Your task to perform on an android device: Set the phone to "Do not disturb". Image 0: 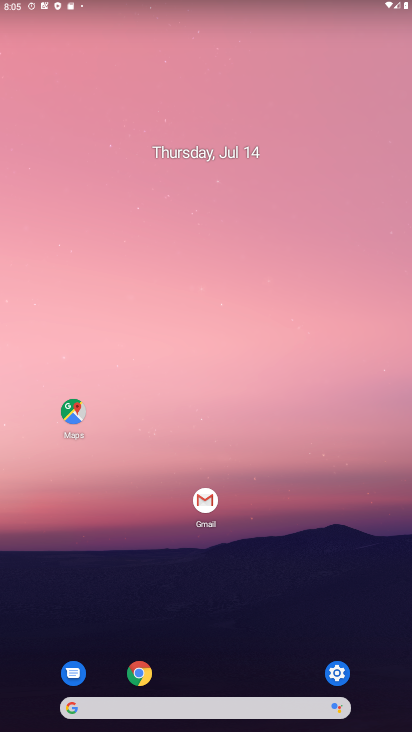
Step 0: click (340, 663)
Your task to perform on an android device: Set the phone to "Do not disturb". Image 1: 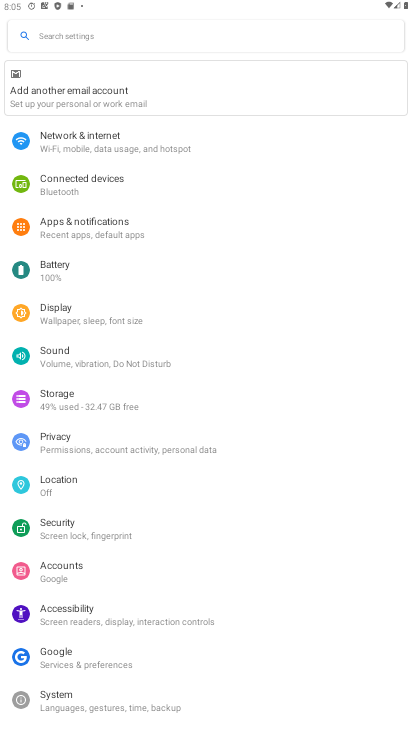
Step 1: click (83, 43)
Your task to perform on an android device: Set the phone to "Do not disturb". Image 2: 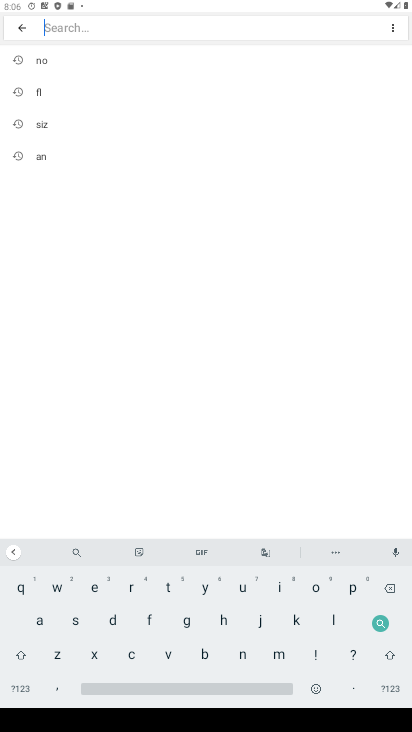
Step 2: click (111, 622)
Your task to perform on an android device: Set the phone to "Do not disturb". Image 3: 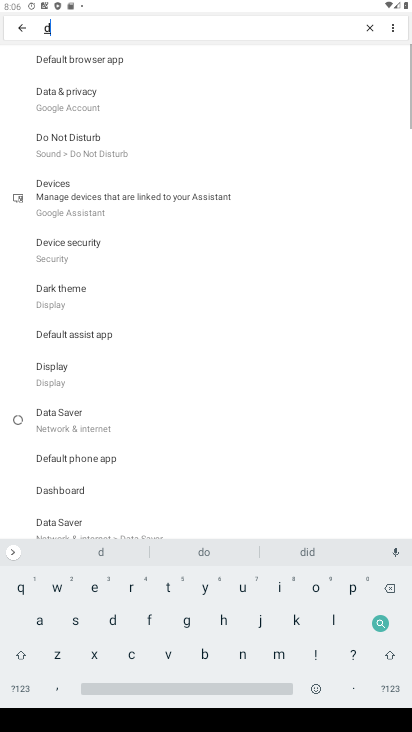
Step 3: click (241, 649)
Your task to perform on an android device: Set the phone to "Do not disturb". Image 4: 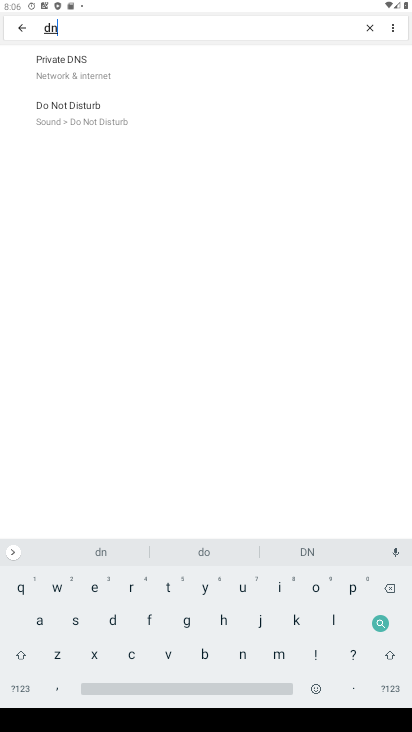
Step 4: click (113, 618)
Your task to perform on an android device: Set the phone to "Do not disturb". Image 5: 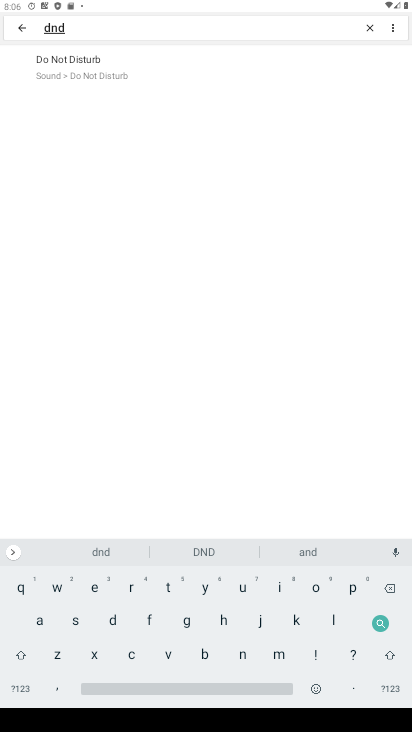
Step 5: click (123, 69)
Your task to perform on an android device: Set the phone to "Do not disturb". Image 6: 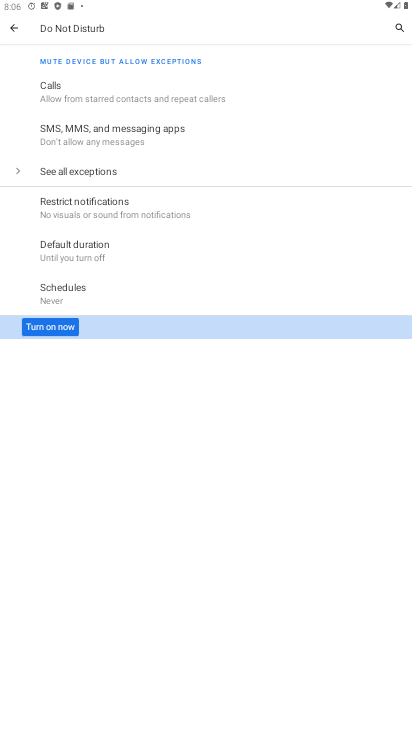
Step 6: click (49, 321)
Your task to perform on an android device: Set the phone to "Do not disturb". Image 7: 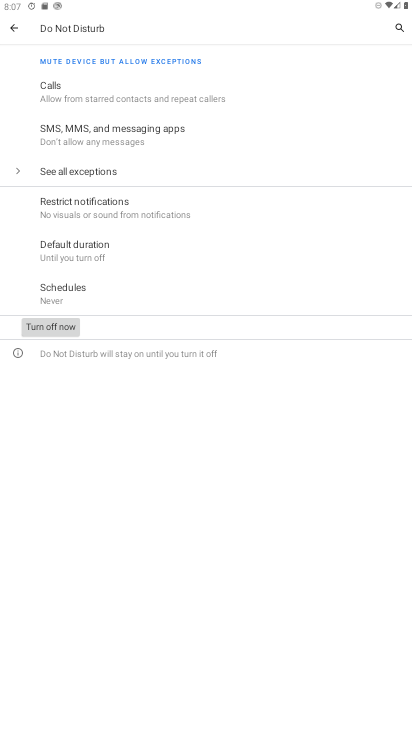
Step 7: task complete